Your task to perform on an android device: Check the news Image 0: 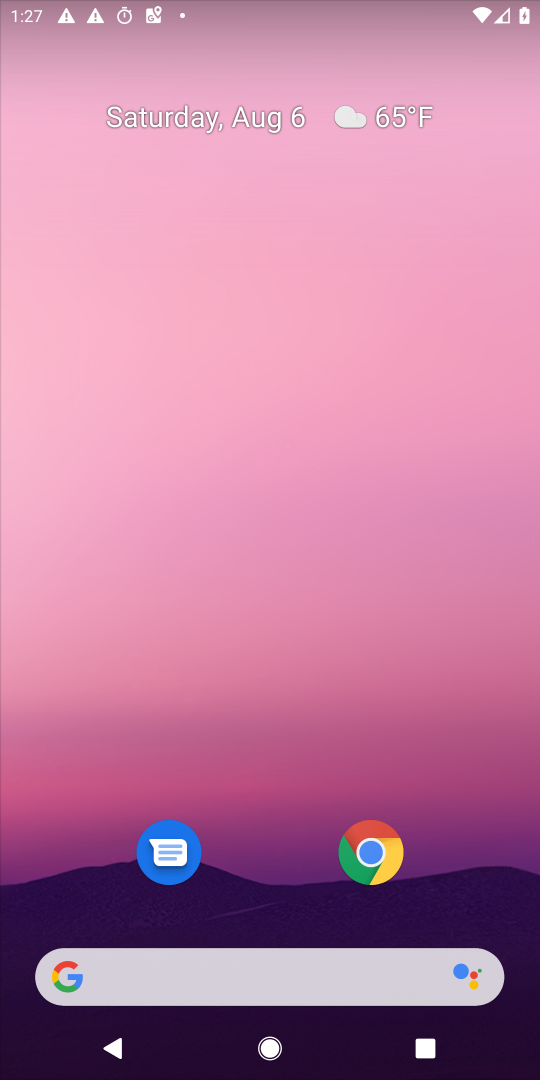
Step 0: press home button
Your task to perform on an android device: Check the news Image 1: 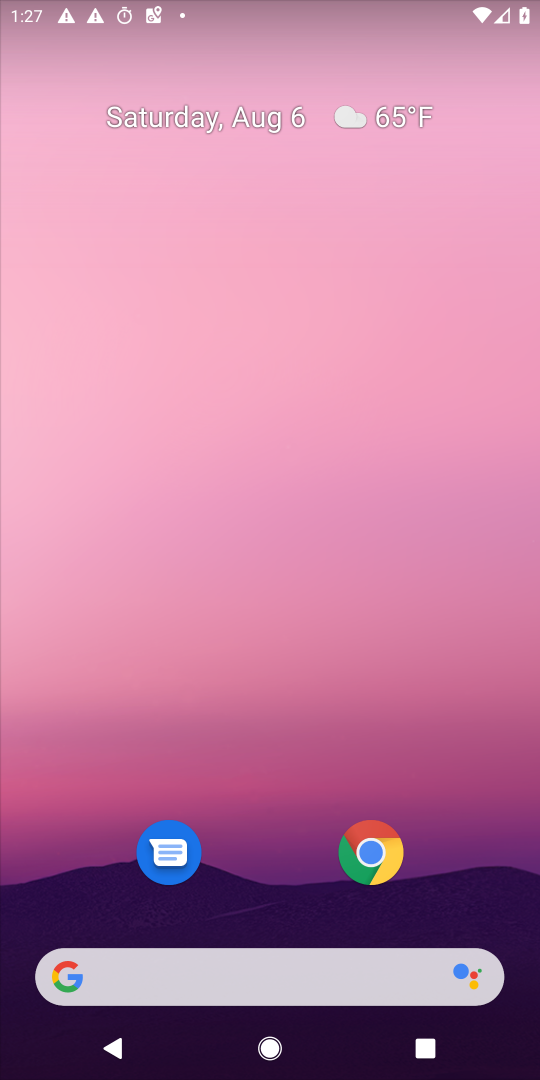
Step 1: drag from (295, 1002) to (296, 151)
Your task to perform on an android device: Check the news Image 2: 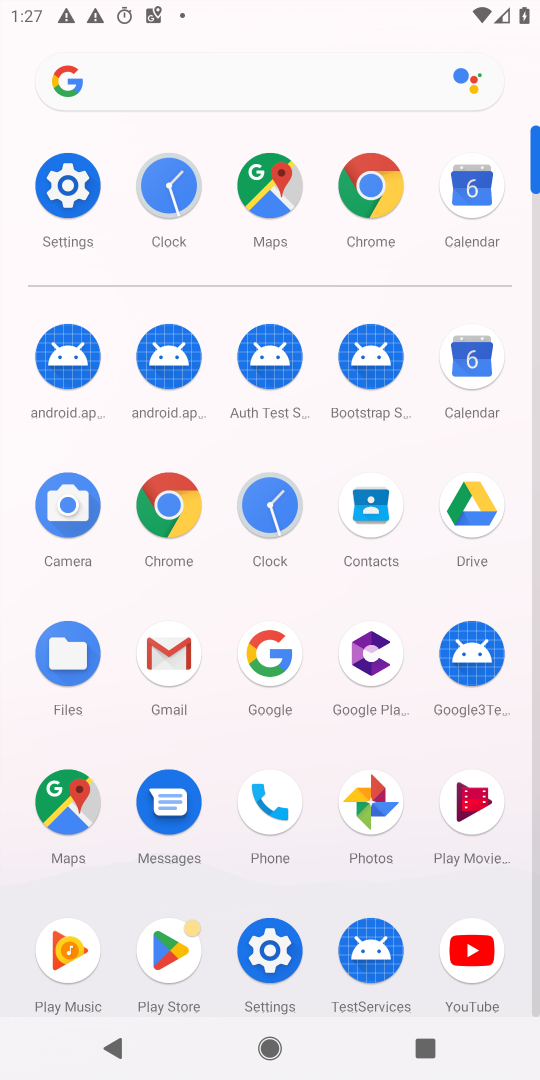
Step 2: click (187, 87)
Your task to perform on an android device: Check the news Image 3: 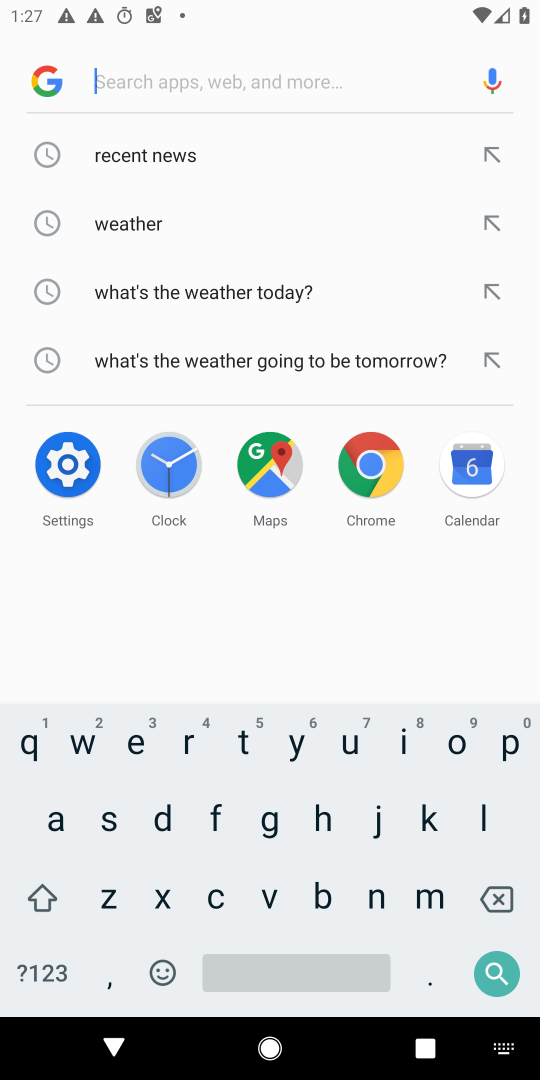
Step 3: click (367, 883)
Your task to perform on an android device: Check the news Image 4: 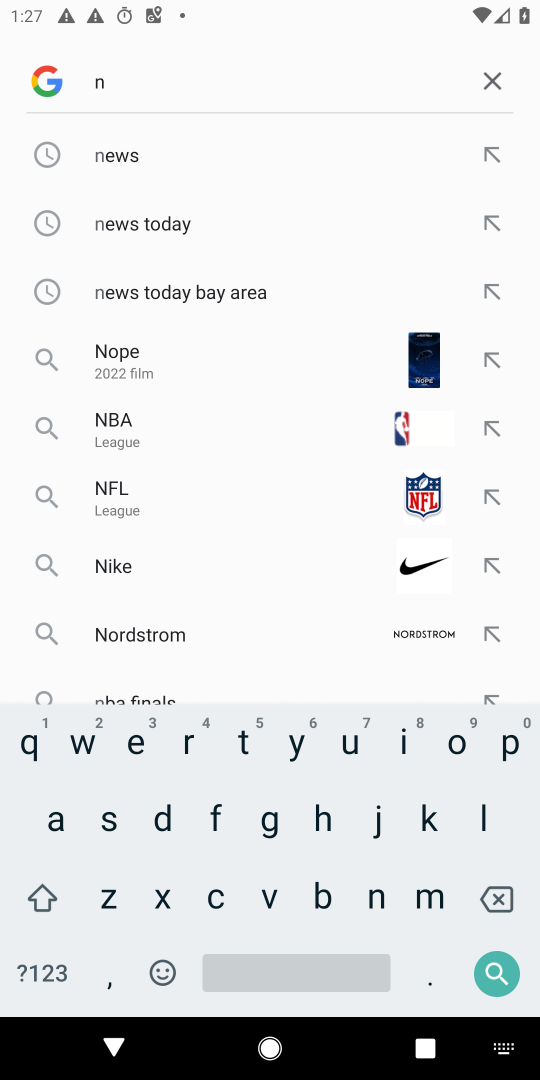
Step 4: click (140, 177)
Your task to perform on an android device: Check the news Image 5: 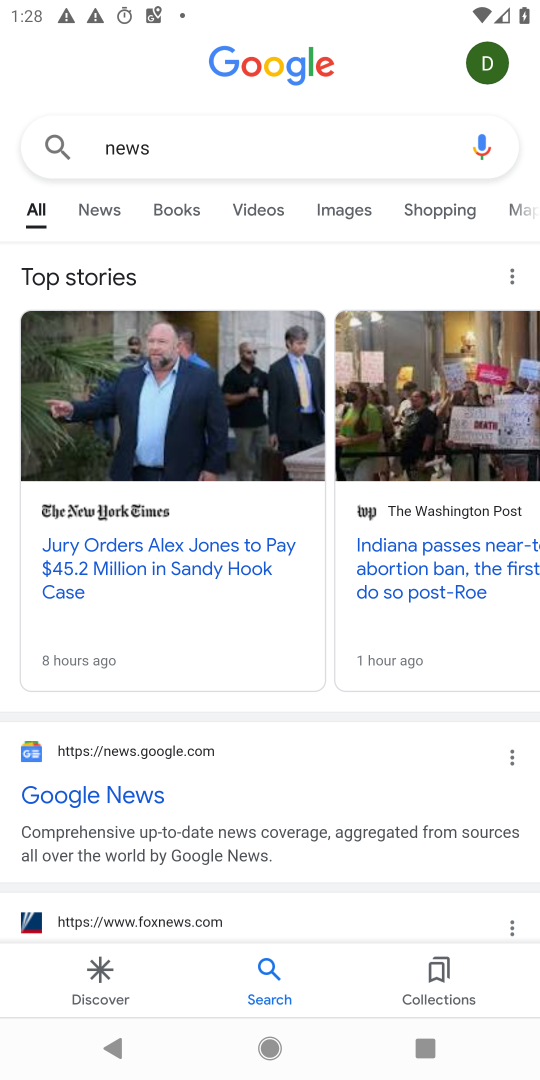
Step 5: task complete